Your task to perform on an android device: What's on my calendar tomorrow? Image 0: 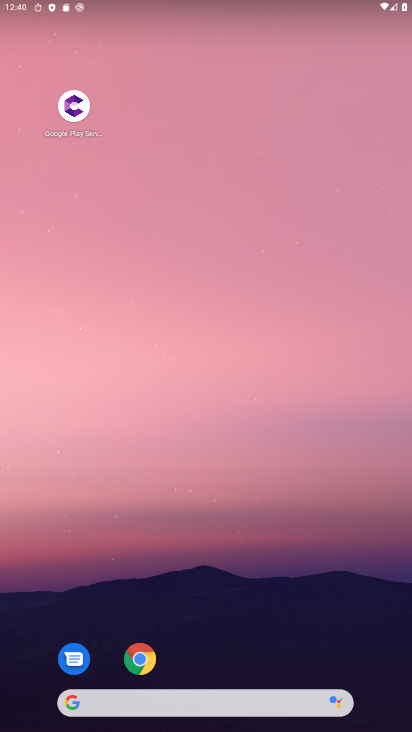
Step 0: drag from (323, 643) to (292, 181)
Your task to perform on an android device: What's on my calendar tomorrow? Image 1: 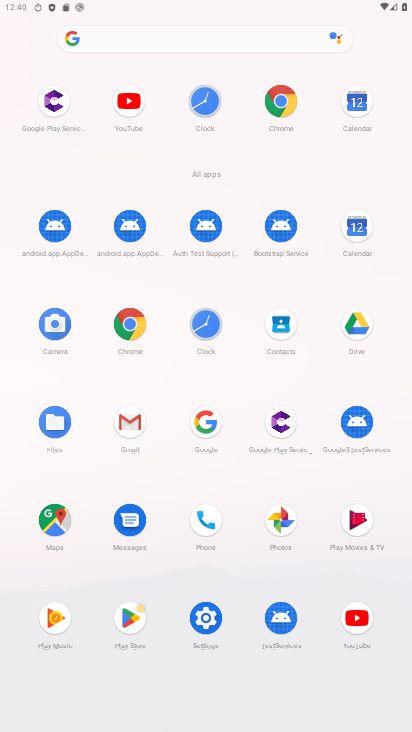
Step 1: click (355, 224)
Your task to perform on an android device: What's on my calendar tomorrow? Image 2: 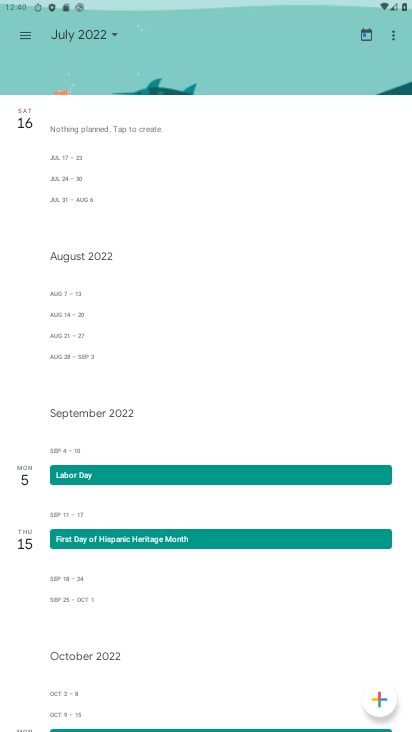
Step 2: click (62, 33)
Your task to perform on an android device: What's on my calendar tomorrow? Image 3: 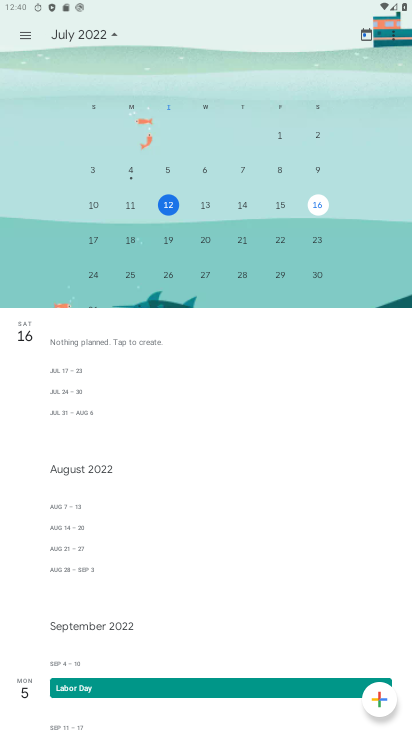
Step 3: click (211, 202)
Your task to perform on an android device: What's on my calendar tomorrow? Image 4: 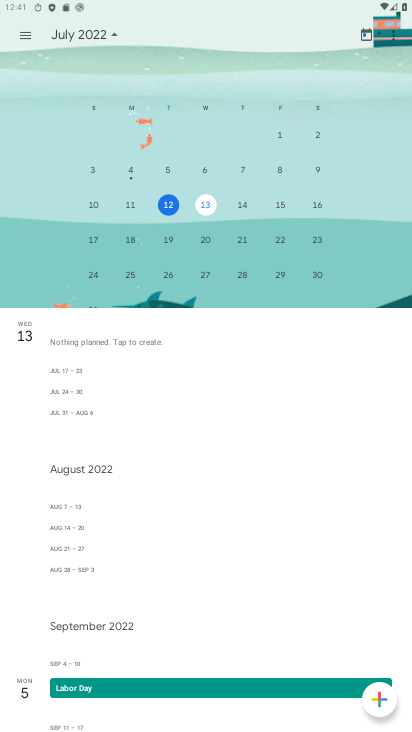
Step 4: click (207, 192)
Your task to perform on an android device: What's on my calendar tomorrow? Image 5: 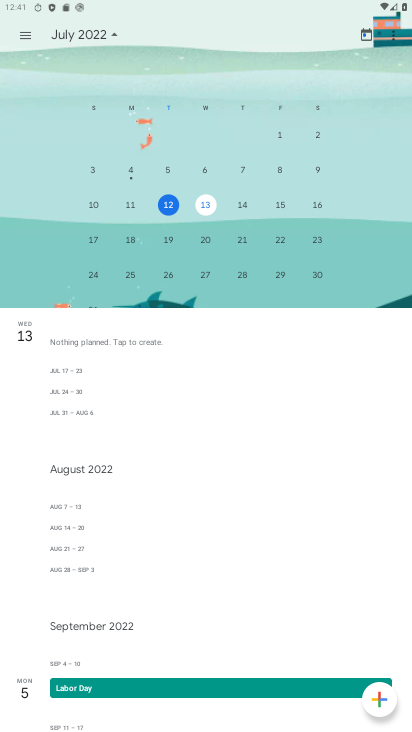
Step 5: drag from (203, 334) to (189, 71)
Your task to perform on an android device: What's on my calendar tomorrow? Image 6: 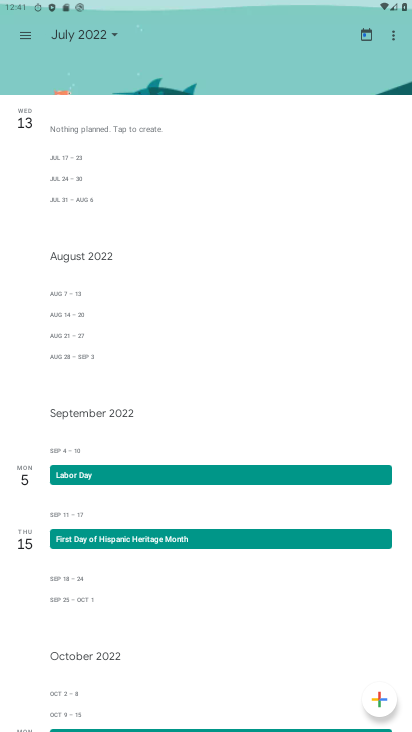
Step 6: click (24, 38)
Your task to perform on an android device: What's on my calendar tomorrow? Image 7: 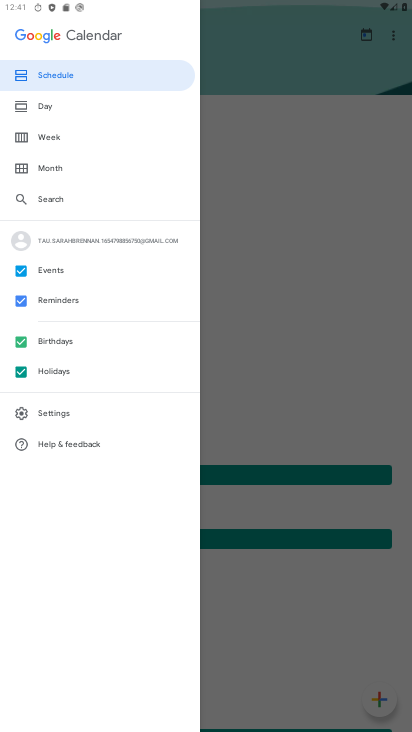
Step 7: click (44, 108)
Your task to perform on an android device: What's on my calendar tomorrow? Image 8: 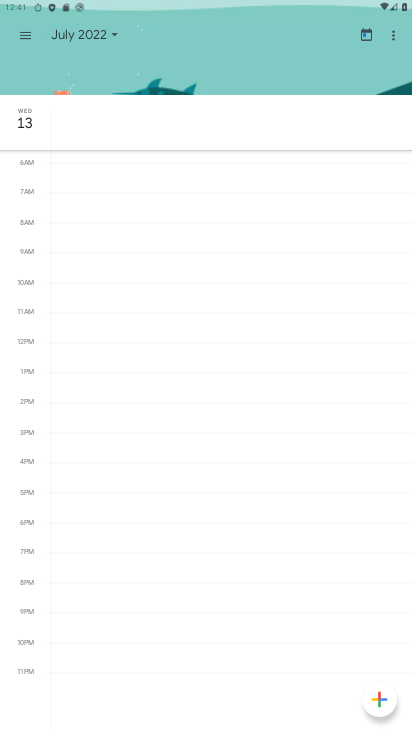
Step 8: task complete